Your task to perform on an android device: turn off data saver in the chrome app Image 0: 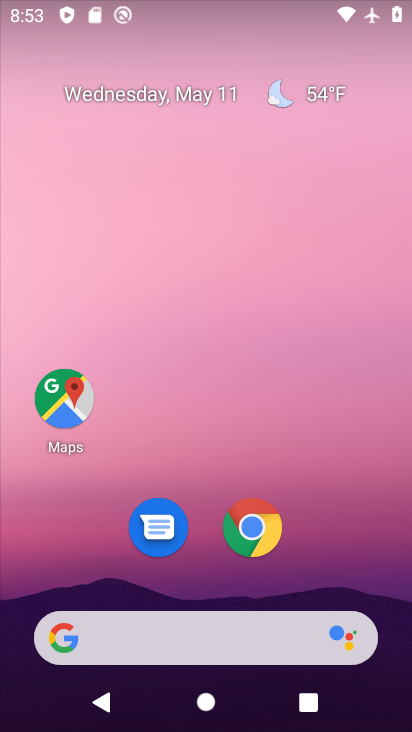
Step 0: click (256, 533)
Your task to perform on an android device: turn off data saver in the chrome app Image 1: 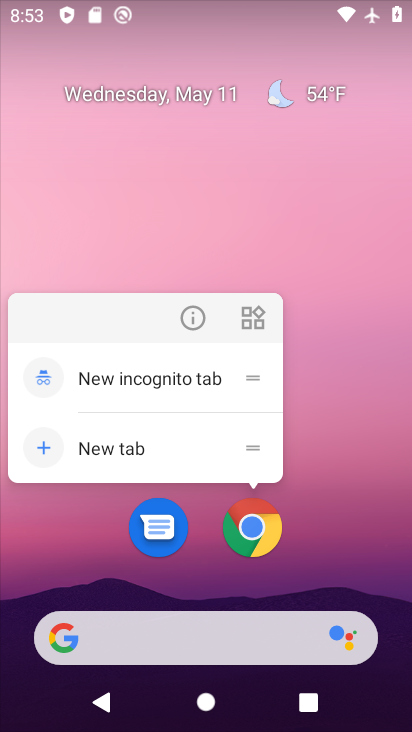
Step 1: click (262, 529)
Your task to perform on an android device: turn off data saver in the chrome app Image 2: 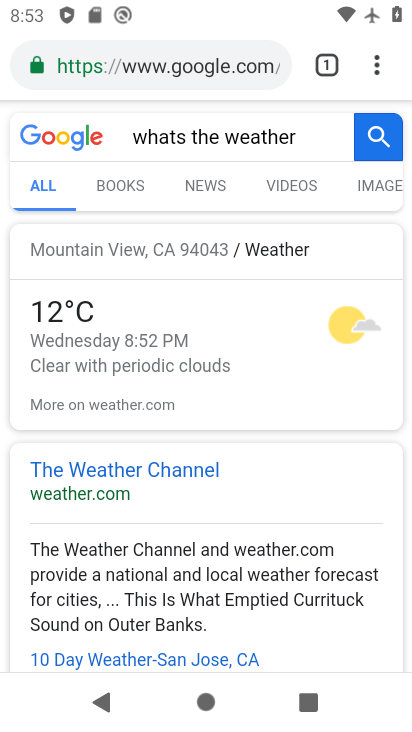
Step 2: drag from (376, 75) to (223, 576)
Your task to perform on an android device: turn off data saver in the chrome app Image 3: 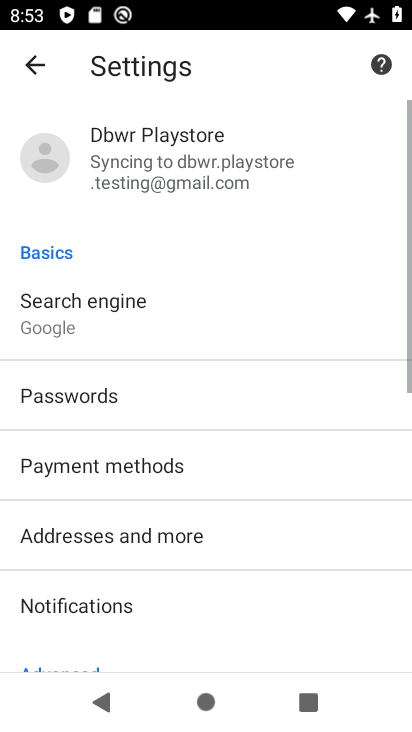
Step 3: drag from (224, 571) to (228, 288)
Your task to perform on an android device: turn off data saver in the chrome app Image 4: 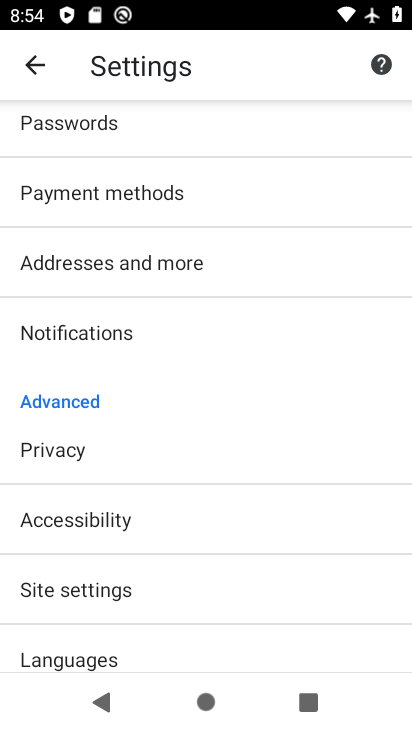
Step 4: drag from (210, 612) to (244, 384)
Your task to perform on an android device: turn off data saver in the chrome app Image 5: 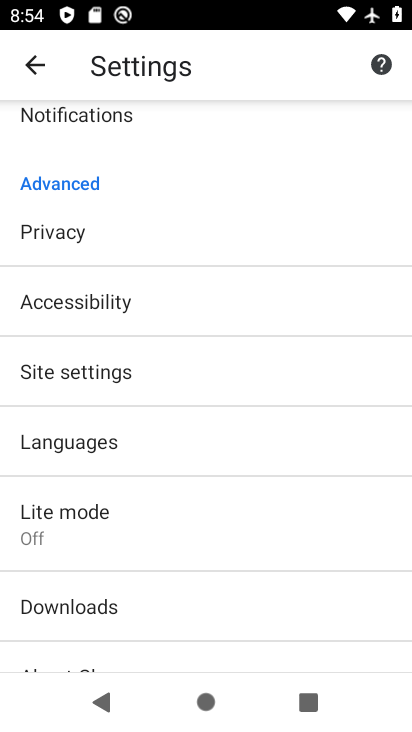
Step 5: click (132, 526)
Your task to perform on an android device: turn off data saver in the chrome app Image 6: 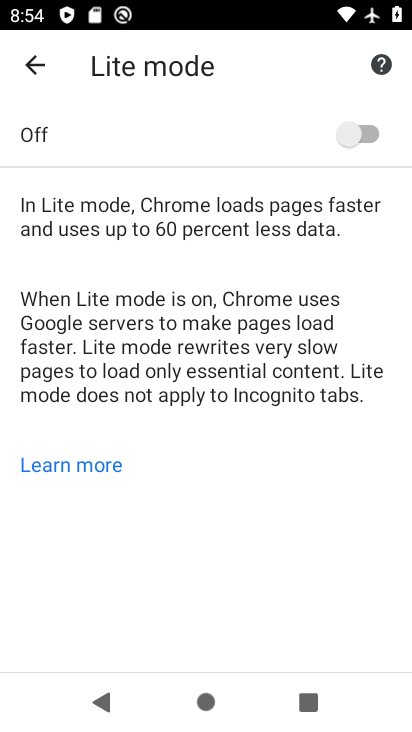
Step 6: task complete